Your task to perform on an android device: toggle notifications settings in the gmail app Image 0: 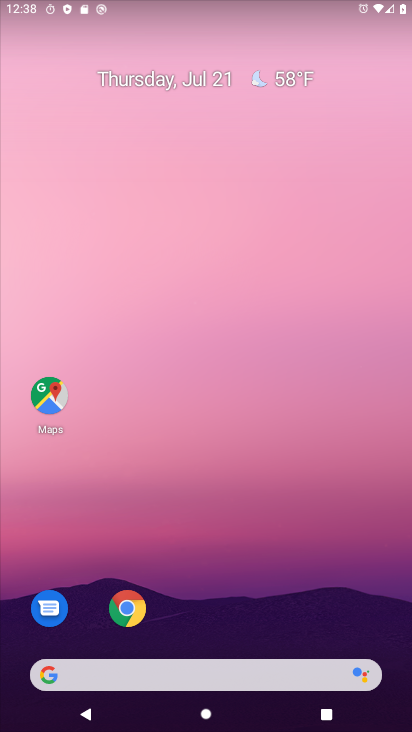
Step 0: press home button
Your task to perform on an android device: toggle notifications settings in the gmail app Image 1: 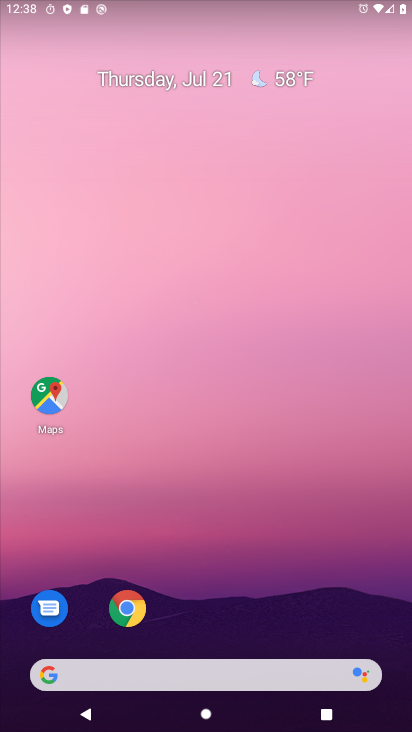
Step 1: drag from (209, 638) to (259, 133)
Your task to perform on an android device: toggle notifications settings in the gmail app Image 2: 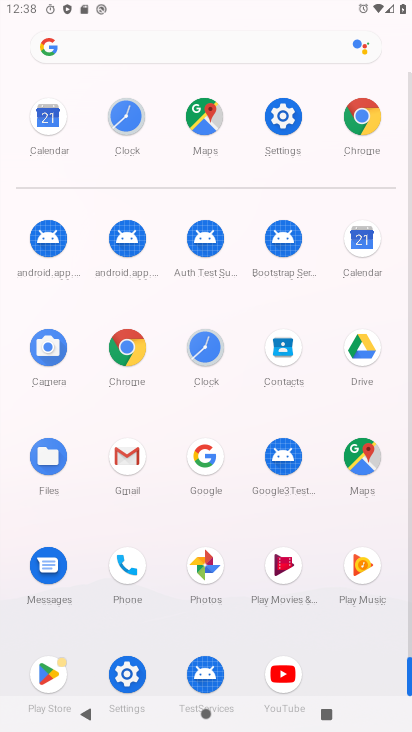
Step 2: click (127, 448)
Your task to perform on an android device: toggle notifications settings in the gmail app Image 3: 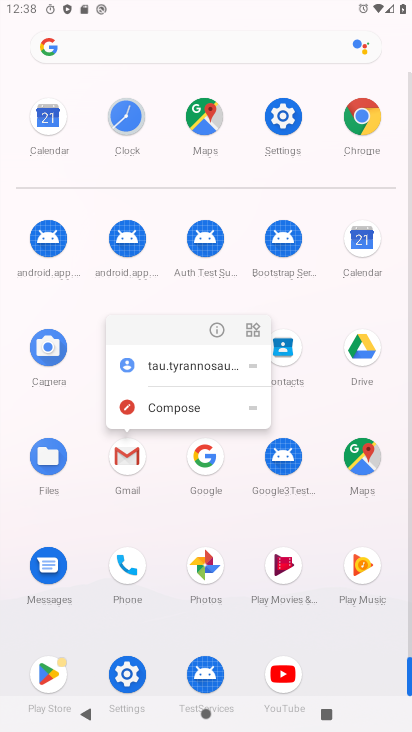
Step 3: click (128, 447)
Your task to perform on an android device: toggle notifications settings in the gmail app Image 4: 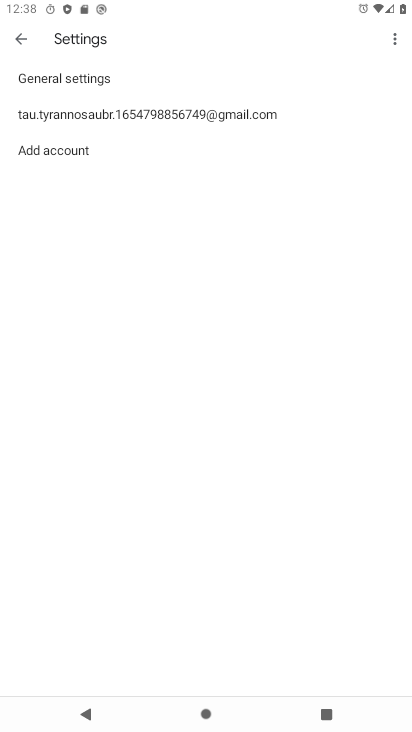
Step 4: click (126, 74)
Your task to perform on an android device: toggle notifications settings in the gmail app Image 5: 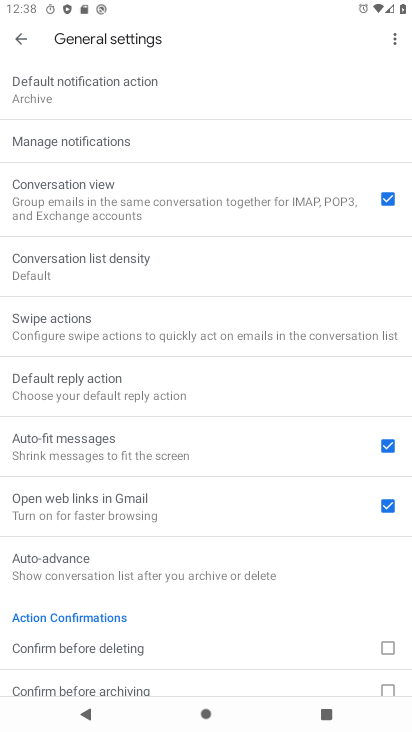
Step 5: click (160, 130)
Your task to perform on an android device: toggle notifications settings in the gmail app Image 6: 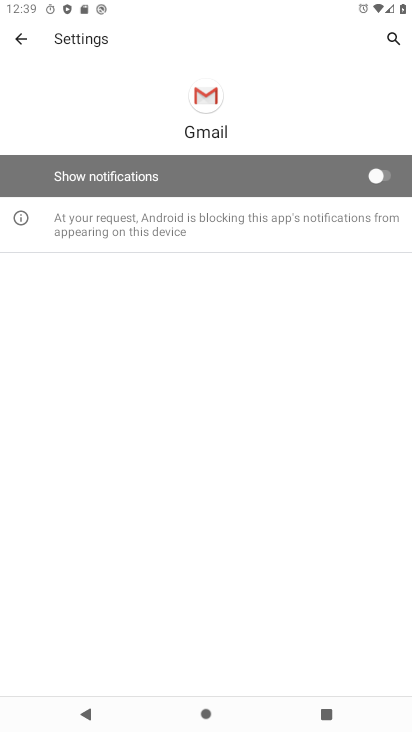
Step 6: click (380, 176)
Your task to perform on an android device: toggle notifications settings in the gmail app Image 7: 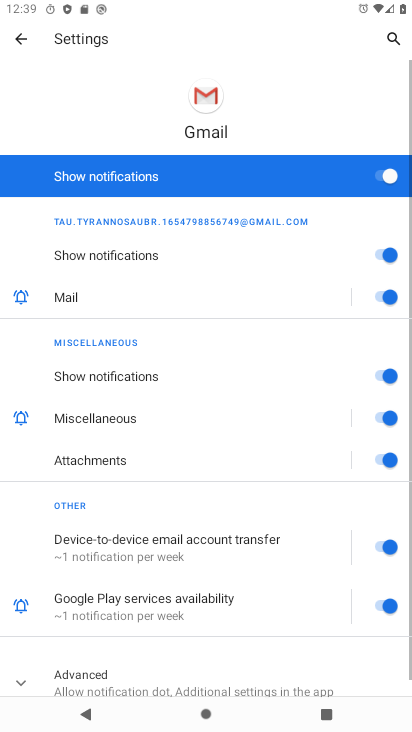
Step 7: task complete